Your task to perform on an android device: turn on improve location accuracy Image 0: 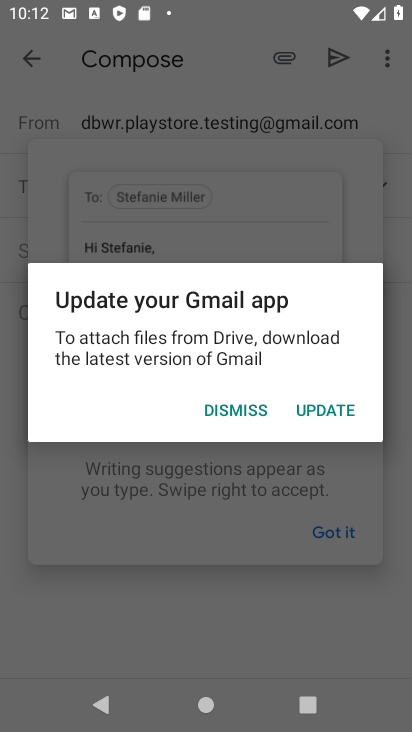
Step 0: press home button
Your task to perform on an android device: turn on improve location accuracy Image 1: 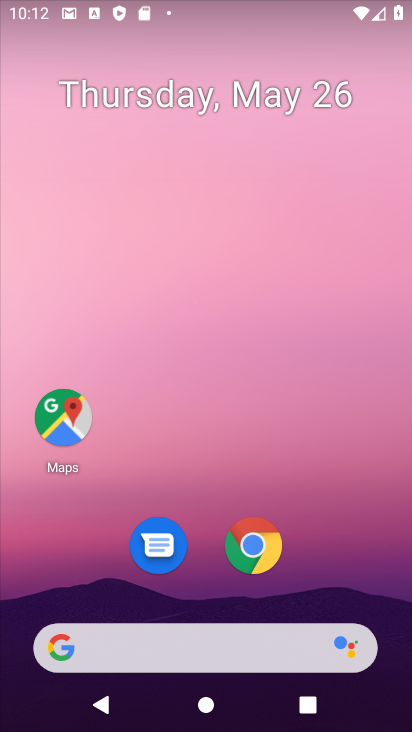
Step 1: drag from (348, 529) to (341, 30)
Your task to perform on an android device: turn on improve location accuracy Image 2: 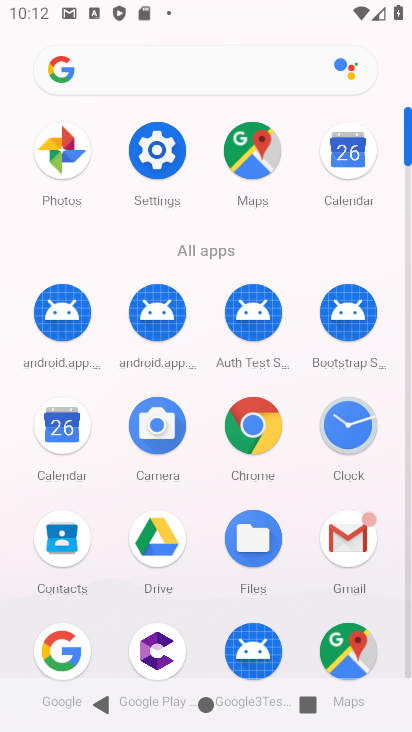
Step 2: click (167, 135)
Your task to perform on an android device: turn on improve location accuracy Image 3: 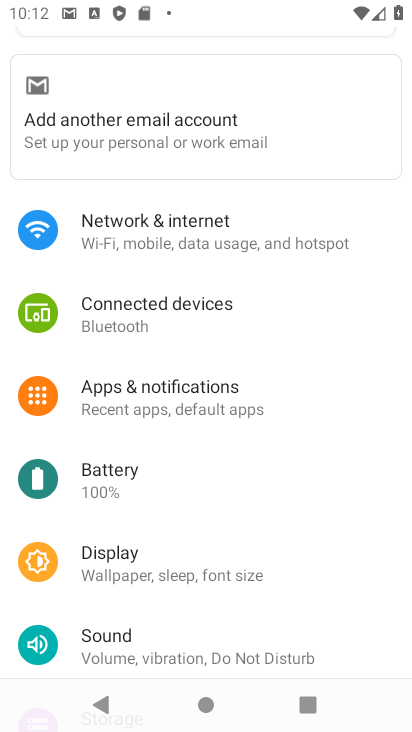
Step 3: drag from (281, 587) to (256, 229)
Your task to perform on an android device: turn on improve location accuracy Image 4: 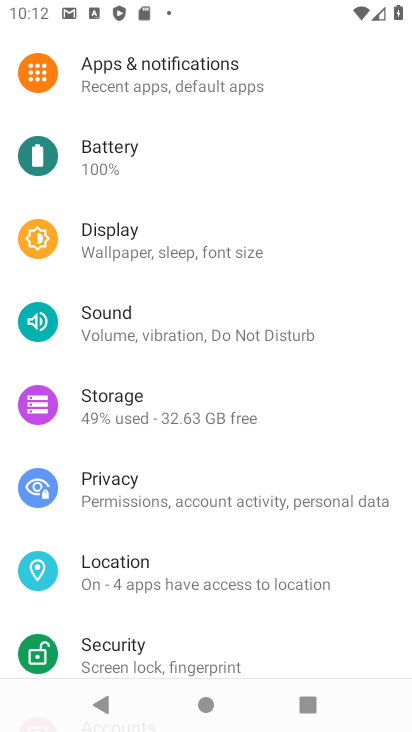
Step 4: click (120, 571)
Your task to perform on an android device: turn on improve location accuracy Image 5: 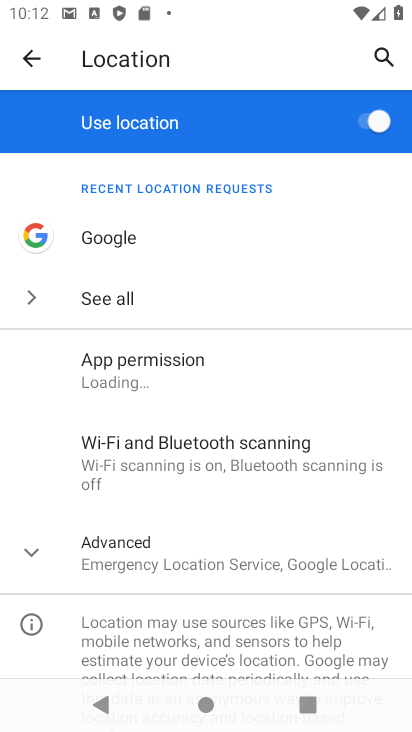
Step 5: click (30, 560)
Your task to perform on an android device: turn on improve location accuracy Image 6: 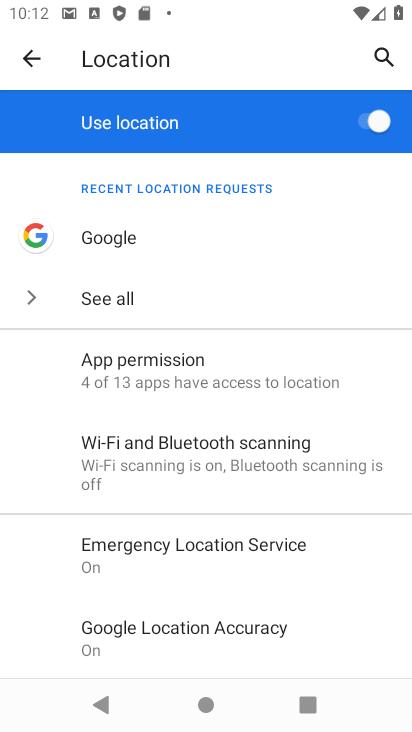
Step 6: click (226, 638)
Your task to perform on an android device: turn on improve location accuracy Image 7: 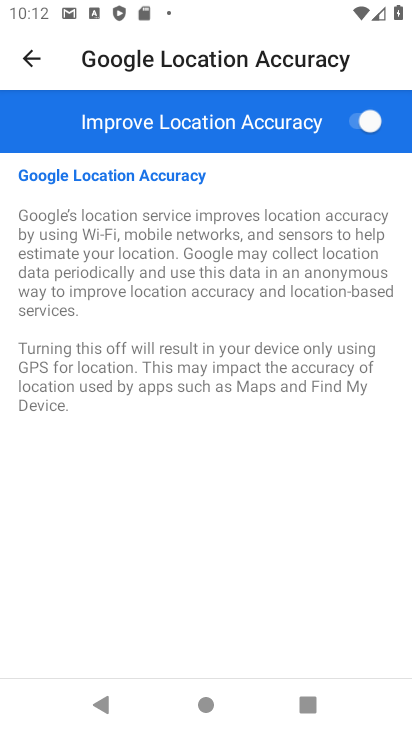
Step 7: task complete